Your task to perform on an android device: change text size in settings app Image 0: 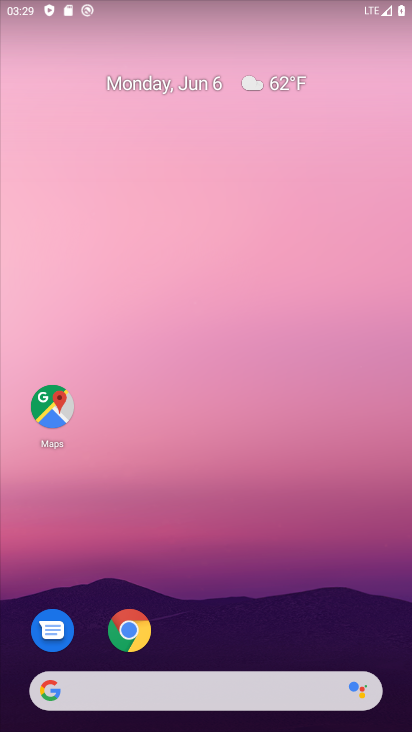
Step 0: drag from (234, 644) to (246, 1)
Your task to perform on an android device: change text size in settings app Image 1: 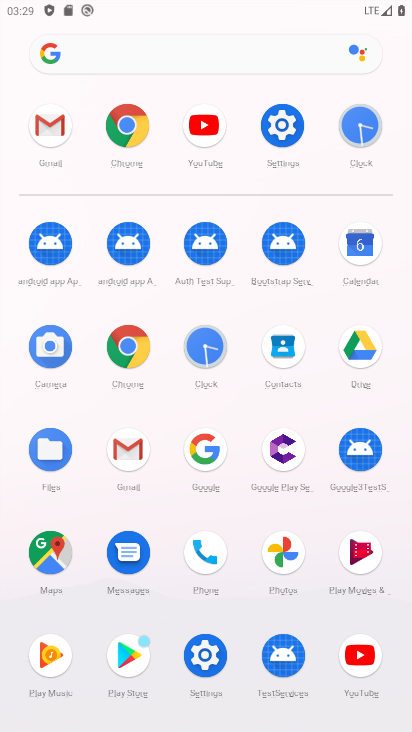
Step 1: click (290, 127)
Your task to perform on an android device: change text size in settings app Image 2: 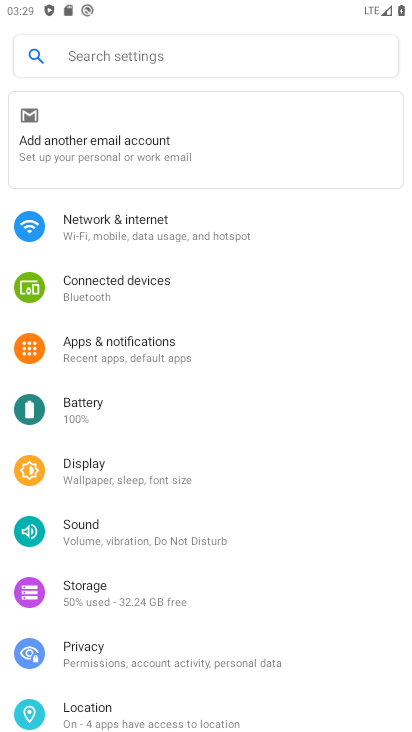
Step 2: click (100, 466)
Your task to perform on an android device: change text size in settings app Image 3: 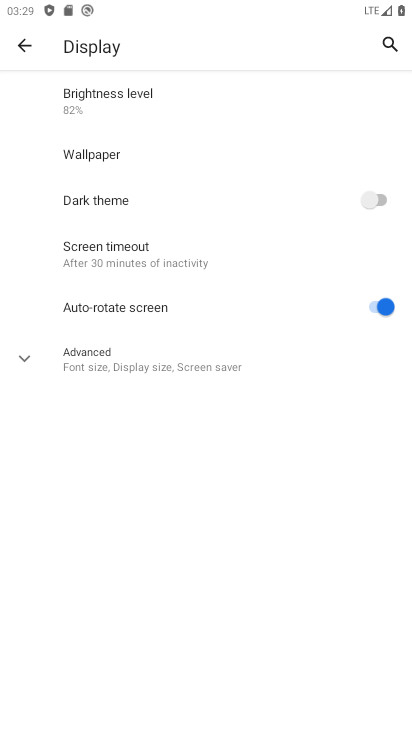
Step 3: click (104, 360)
Your task to perform on an android device: change text size in settings app Image 4: 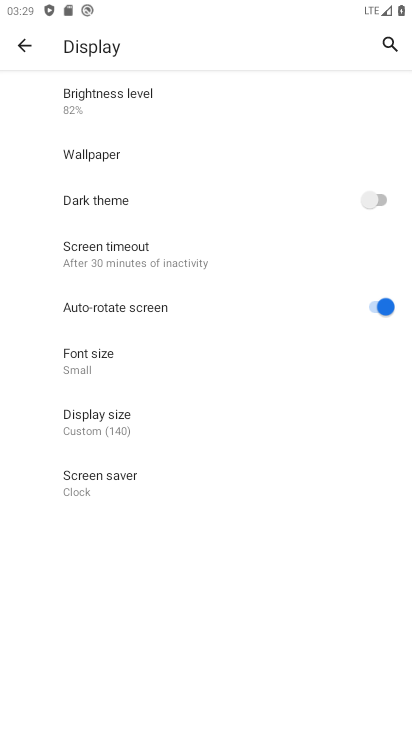
Step 4: click (104, 360)
Your task to perform on an android device: change text size in settings app Image 5: 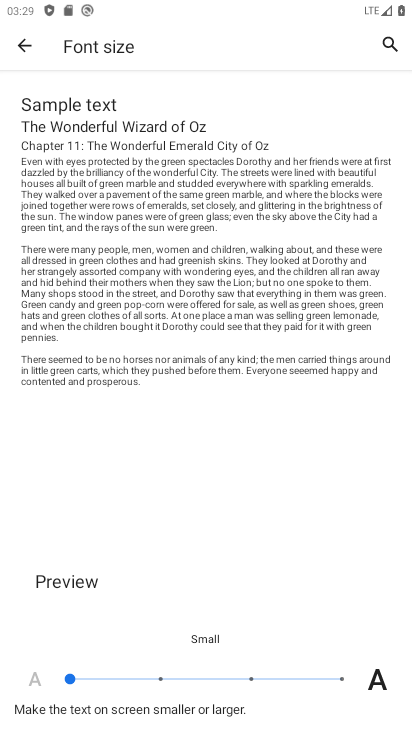
Step 5: click (383, 672)
Your task to perform on an android device: change text size in settings app Image 6: 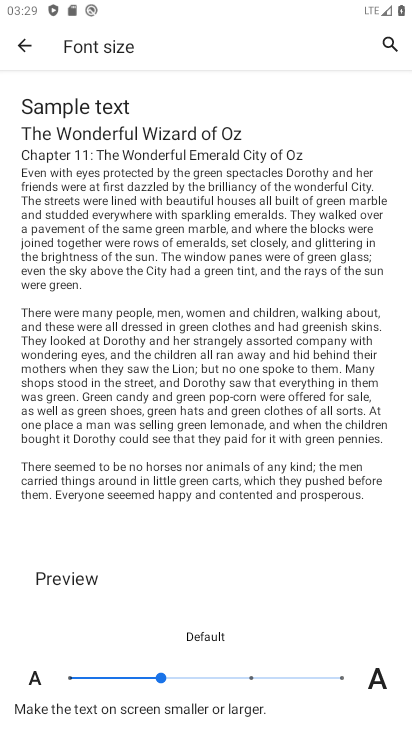
Step 6: task complete